Your task to perform on an android device: Open the Play Movies app and select the watchlist tab. Image 0: 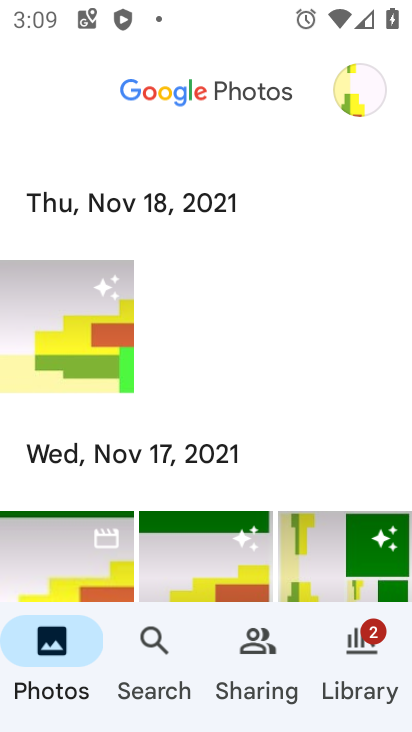
Step 0: press home button
Your task to perform on an android device: Open the Play Movies app and select the watchlist tab. Image 1: 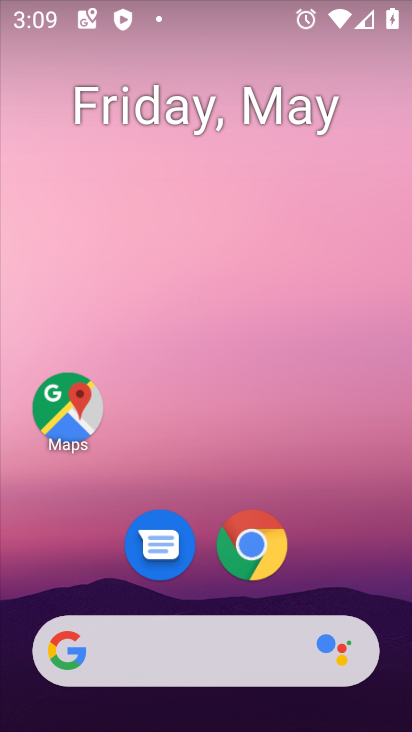
Step 1: drag from (331, 551) to (296, 89)
Your task to perform on an android device: Open the Play Movies app and select the watchlist tab. Image 2: 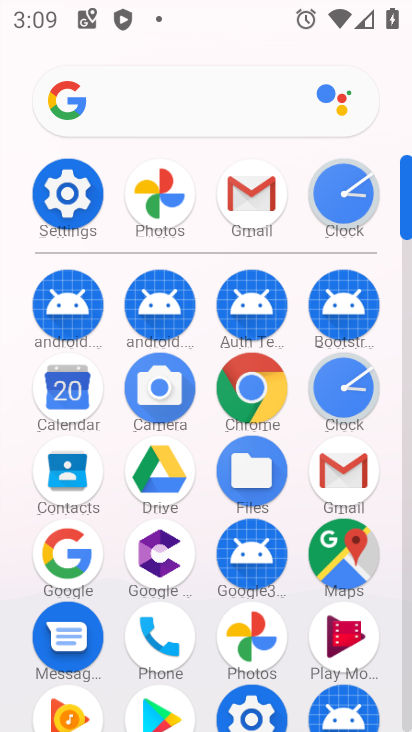
Step 2: click (339, 640)
Your task to perform on an android device: Open the Play Movies app and select the watchlist tab. Image 3: 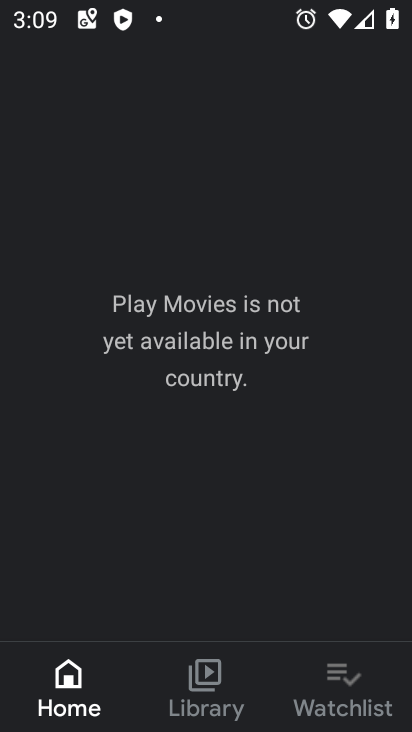
Step 3: click (345, 670)
Your task to perform on an android device: Open the Play Movies app and select the watchlist tab. Image 4: 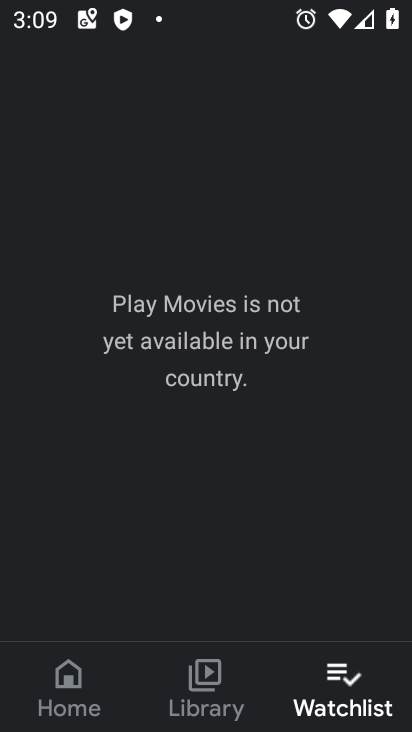
Step 4: task complete